Your task to perform on an android device: change the clock display to digital Image 0: 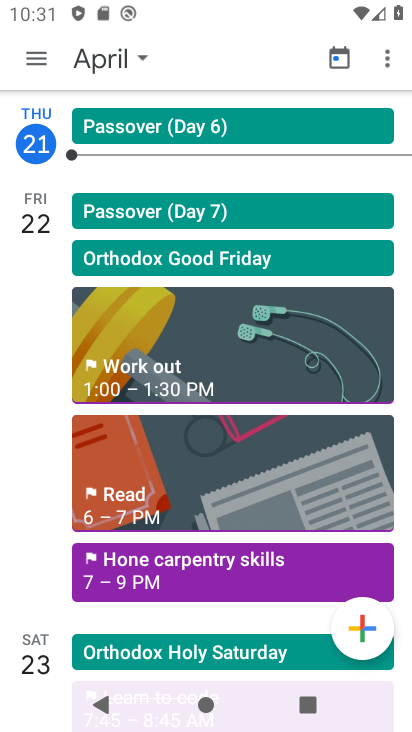
Step 0: press home button
Your task to perform on an android device: change the clock display to digital Image 1: 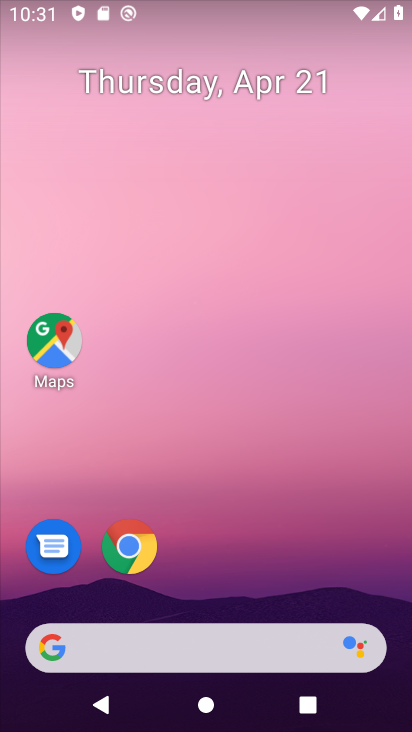
Step 1: drag from (291, 547) to (292, 119)
Your task to perform on an android device: change the clock display to digital Image 2: 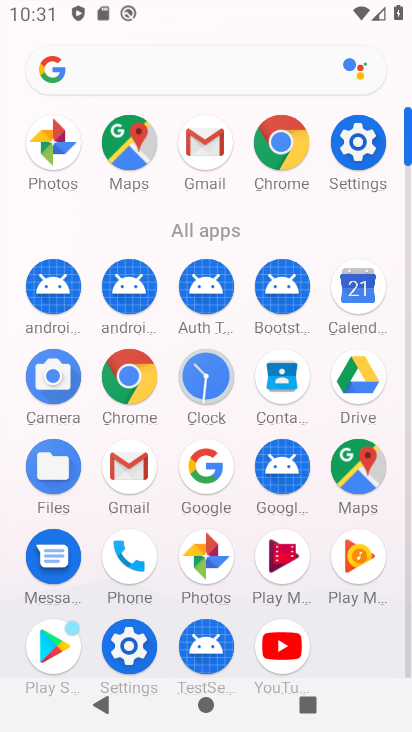
Step 2: click (217, 376)
Your task to perform on an android device: change the clock display to digital Image 3: 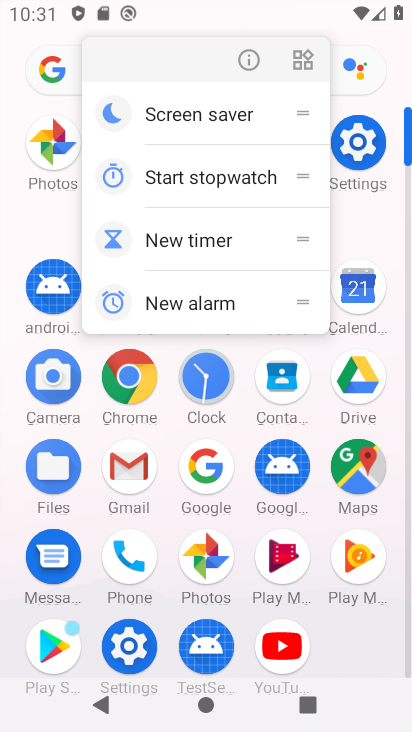
Step 3: click (208, 388)
Your task to perform on an android device: change the clock display to digital Image 4: 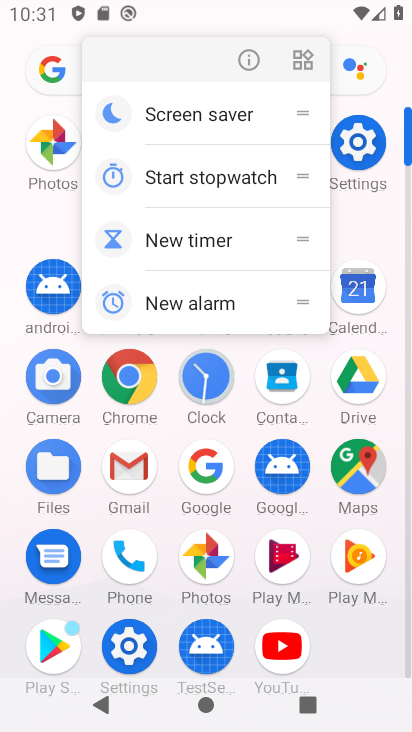
Step 4: click (208, 385)
Your task to perform on an android device: change the clock display to digital Image 5: 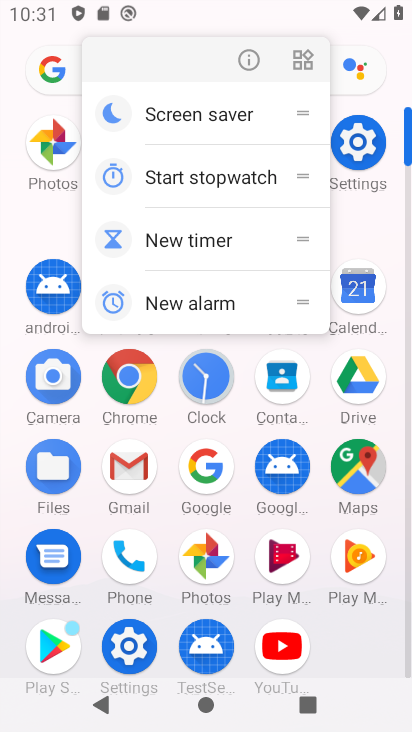
Step 5: click (320, 585)
Your task to perform on an android device: change the clock display to digital Image 6: 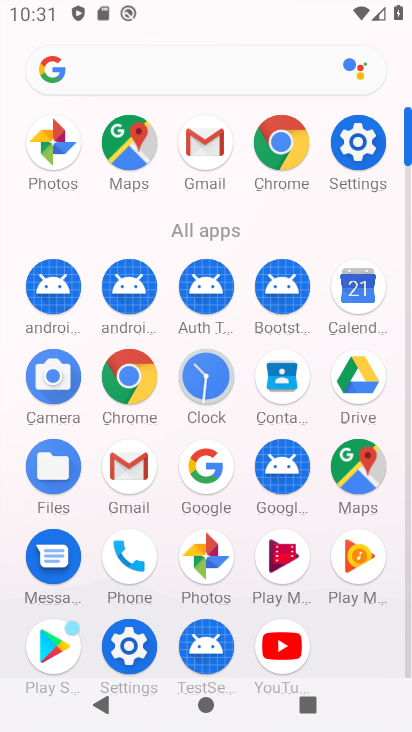
Step 6: click (221, 389)
Your task to perform on an android device: change the clock display to digital Image 7: 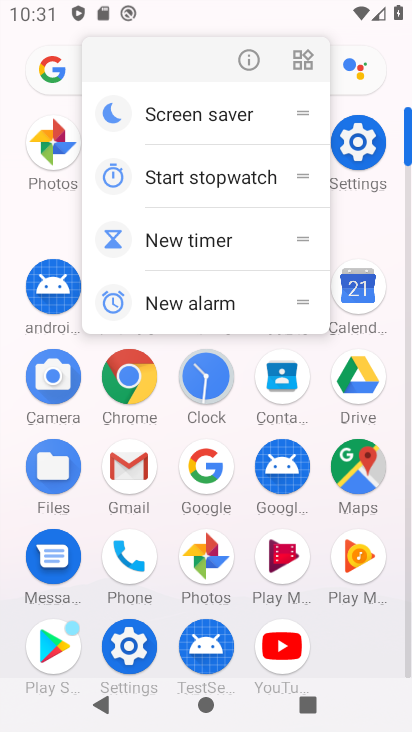
Step 7: click (375, 242)
Your task to perform on an android device: change the clock display to digital Image 8: 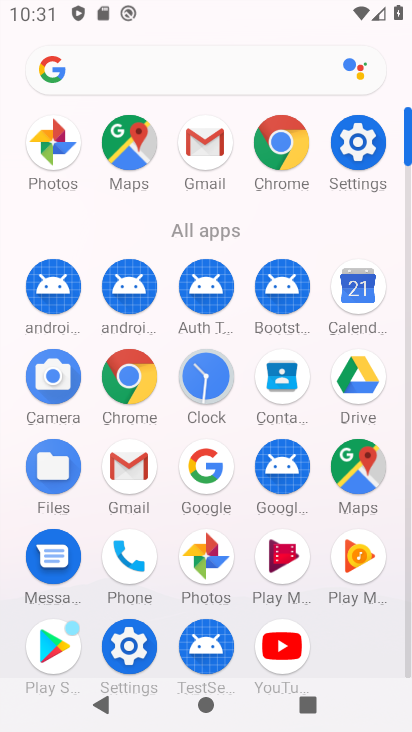
Step 8: click (198, 373)
Your task to perform on an android device: change the clock display to digital Image 9: 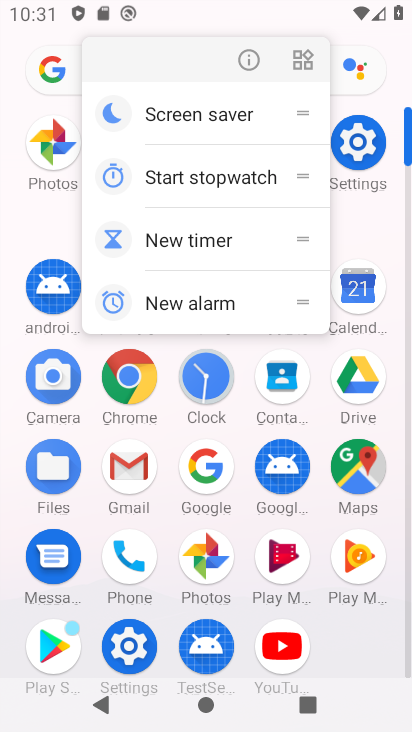
Step 9: click (196, 375)
Your task to perform on an android device: change the clock display to digital Image 10: 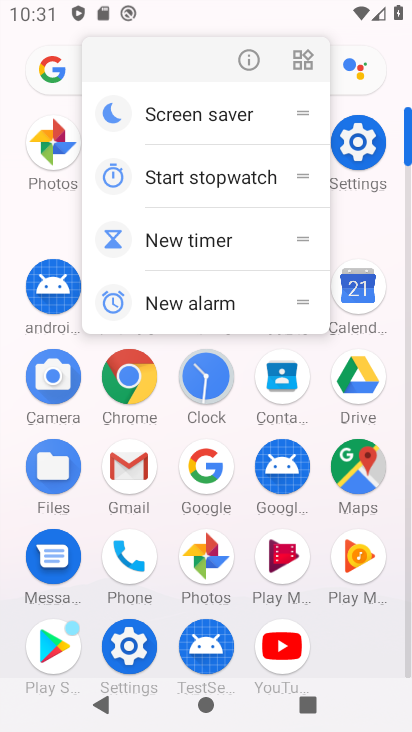
Step 10: click (244, 427)
Your task to perform on an android device: change the clock display to digital Image 11: 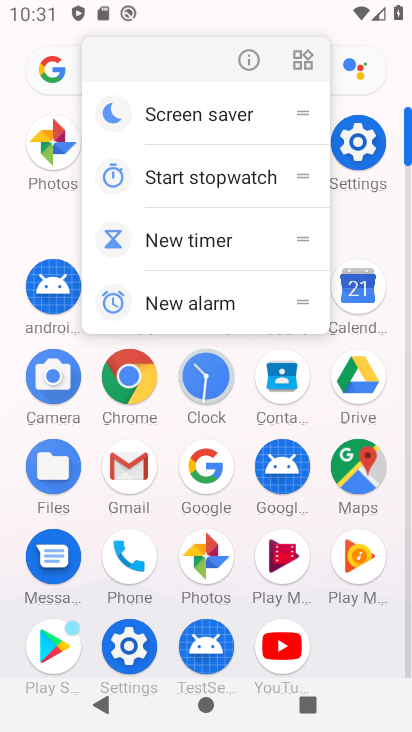
Step 11: click (208, 386)
Your task to perform on an android device: change the clock display to digital Image 12: 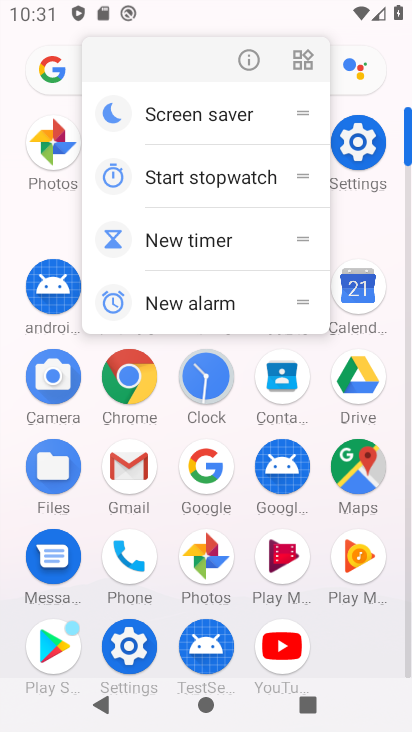
Step 12: drag from (315, 579) to (352, 185)
Your task to perform on an android device: change the clock display to digital Image 13: 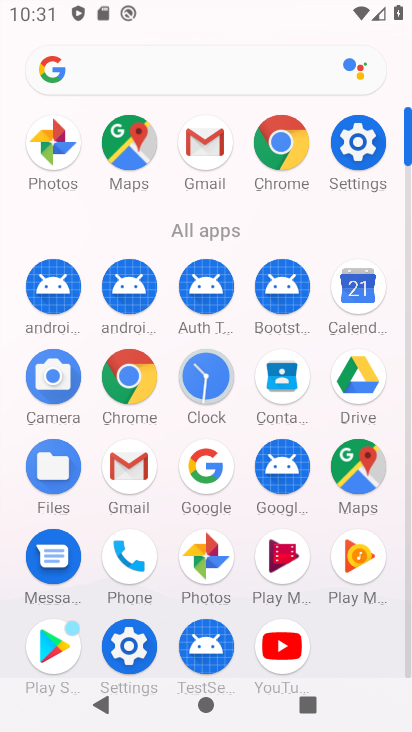
Step 13: click (215, 378)
Your task to perform on an android device: change the clock display to digital Image 14: 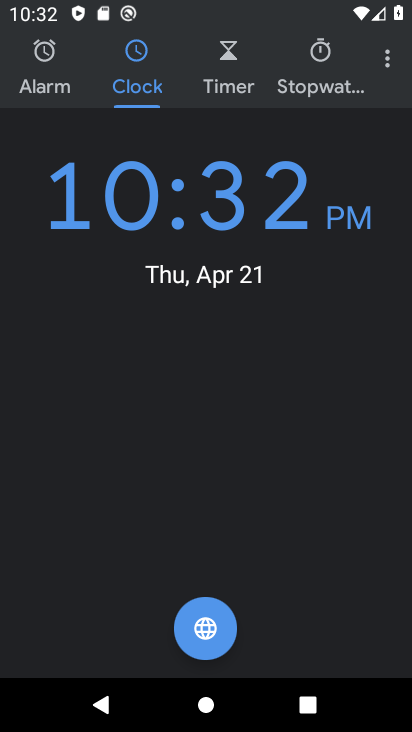
Step 14: click (389, 62)
Your task to perform on an android device: change the clock display to digital Image 15: 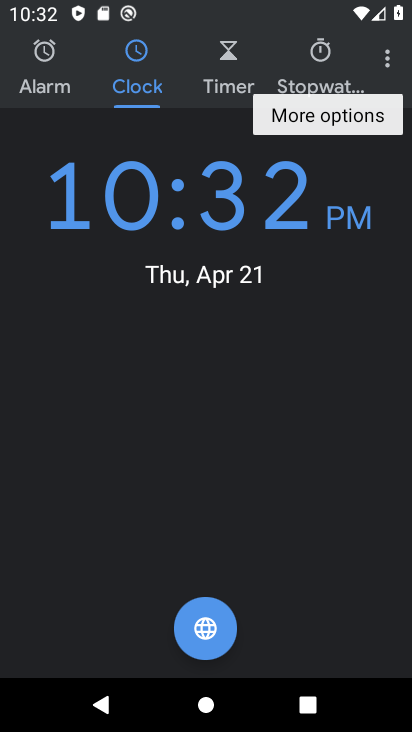
Step 15: click (382, 79)
Your task to perform on an android device: change the clock display to digital Image 16: 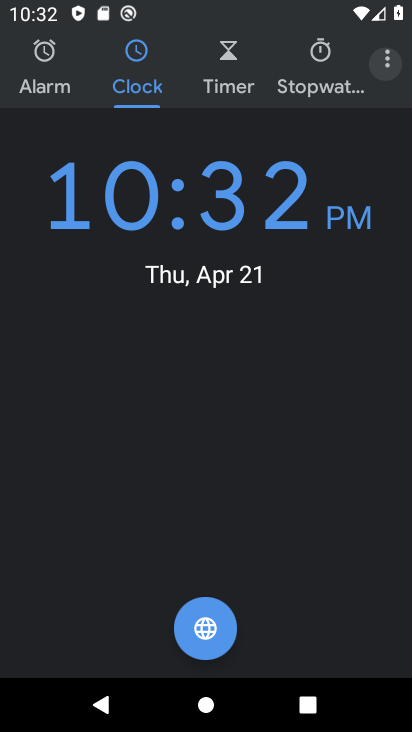
Step 16: click (349, 125)
Your task to perform on an android device: change the clock display to digital Image 17: 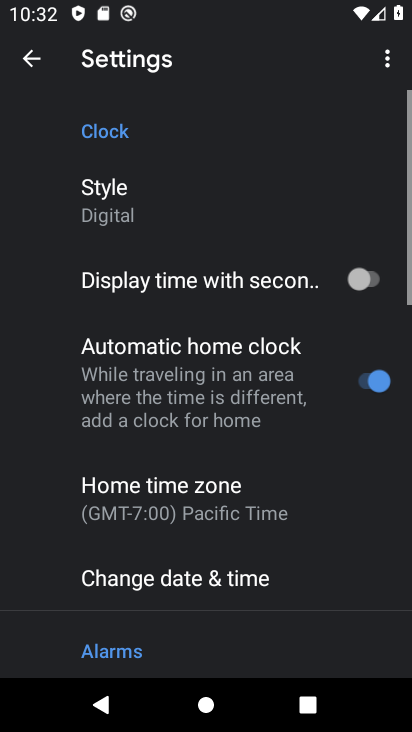
Step 17: drag from (258, 129) to (303, 90)
Your task to perform on an android device: change the clock display to digital Image 18: 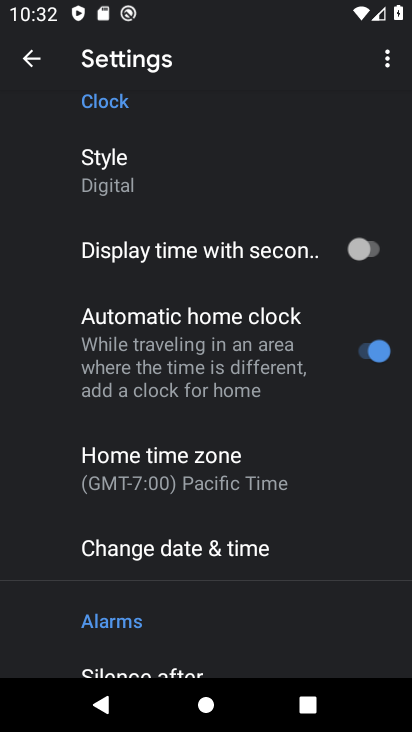
Step 18: click (148, 161)
Your task to perform on an android device: change the clock display to digital Image 19: 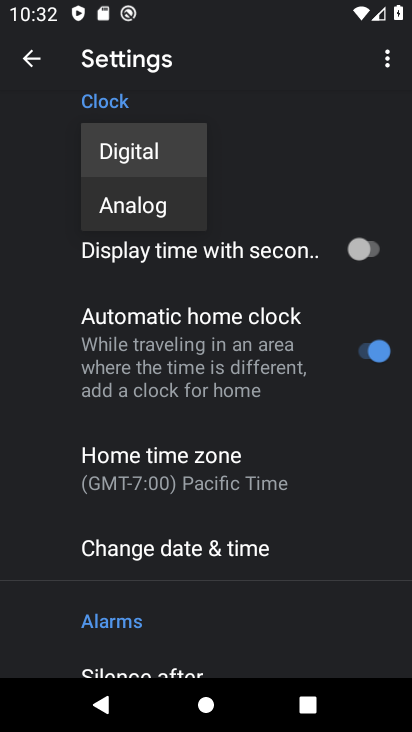
Step 19: task complete